Your task to perform on an android device: What is the news today? Image 0: 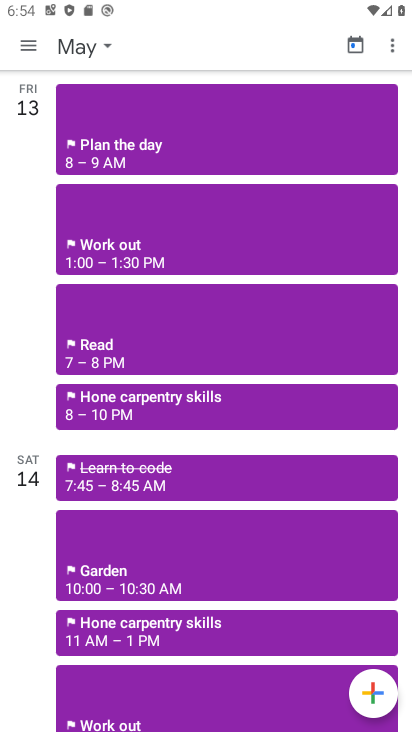
Step 0: press home button
Your task to perform on an android device: What is the news today? Image 1: 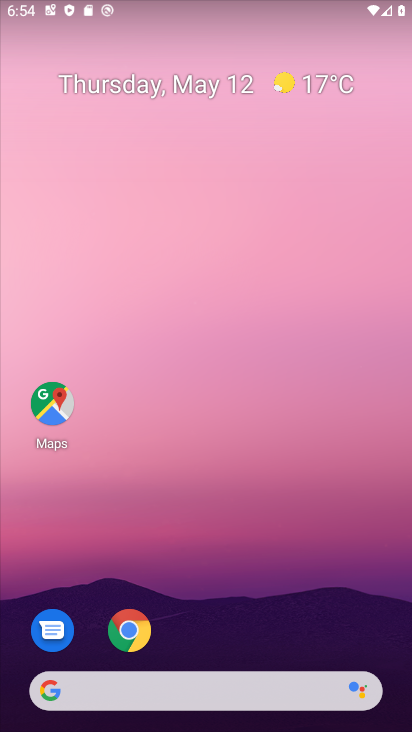
Step 1: drag from (241, 607) to (248, 0)
Your task to perform on an android device: What is the news today? Image 2: 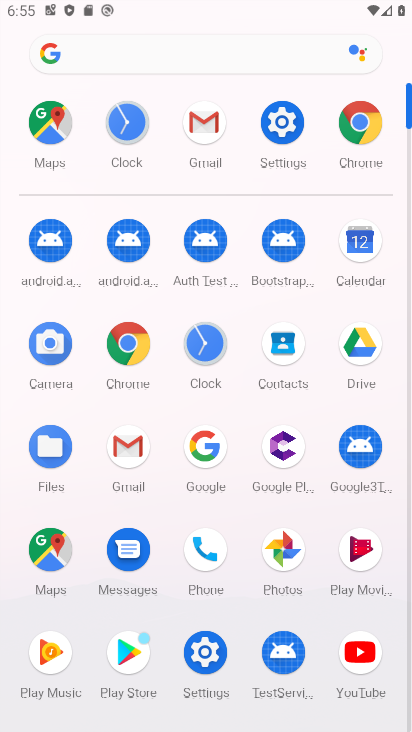
Step 2: click (112, 346)
Your task to perform on an android device: What is the news today? Image 3: 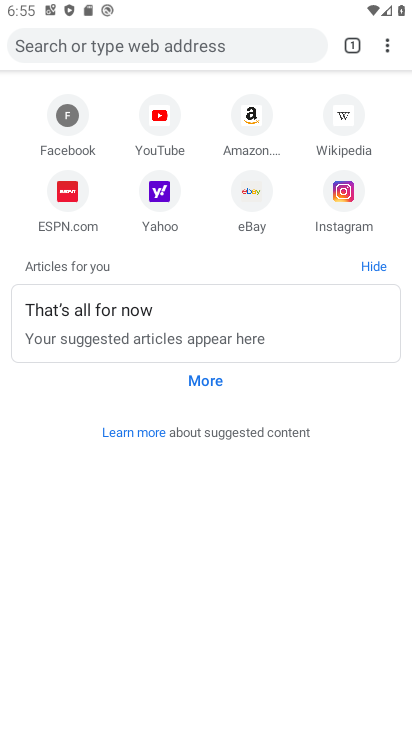
Step 3: click (185, 372)
Your task to perform on an android device: What is the news today? Image 4: 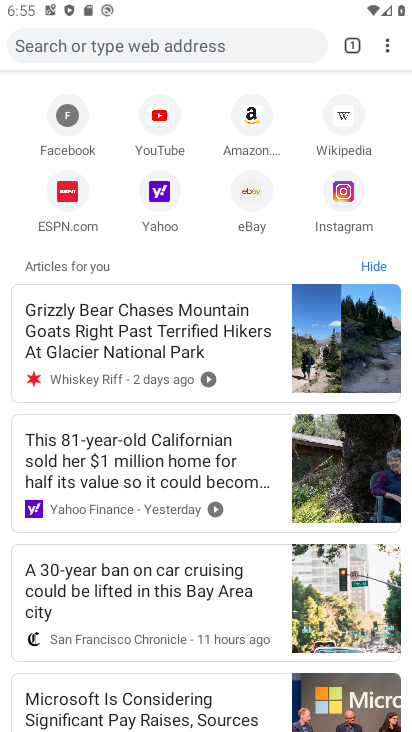
Step 4: click (103, 626)
Your task to perform on an android device: What is the news today? Image 5: 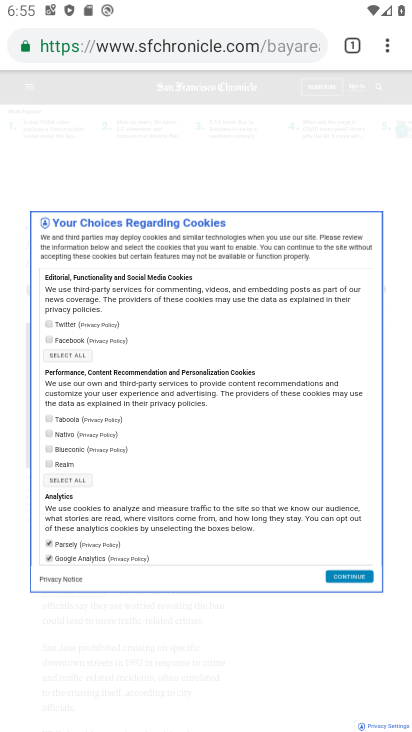
Step 5: task complete